Your task to perform on an android device: change timer sound Image 0: 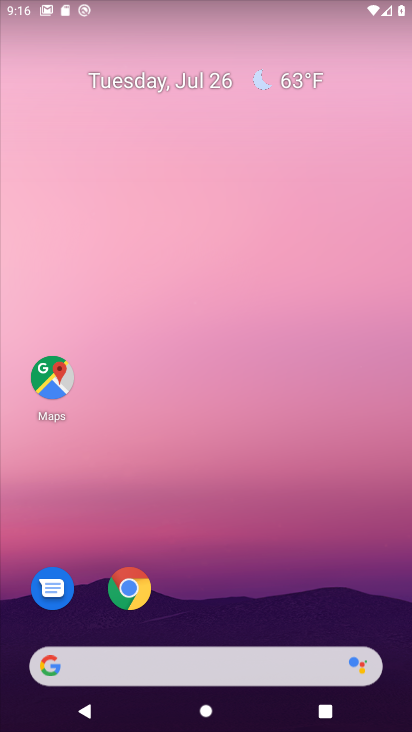
Step 0: drag from (392, 647) to (282, 46)
Your task to perform on an android device: change timer sound Image 1: 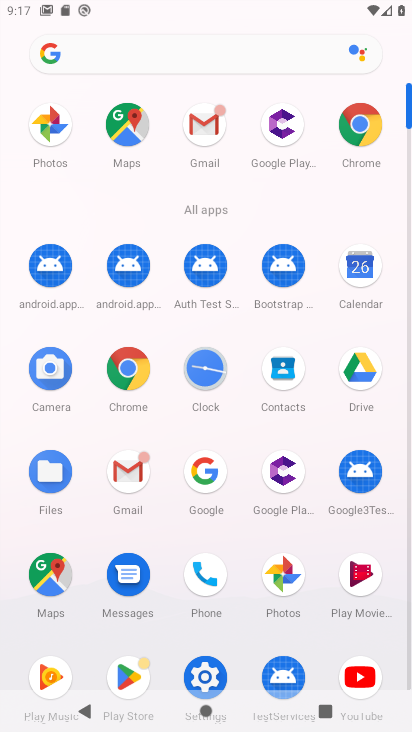
Step 1: click (209, 360)
Your task to perform on an android device: change timer sound Image 2: 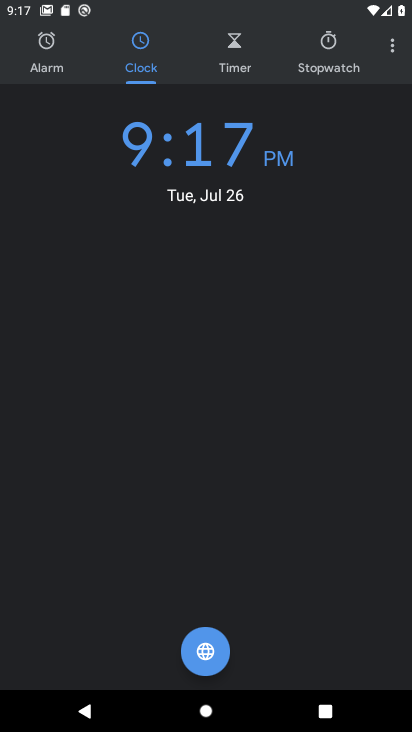
Step 2: click (399, 51)
Your task to perform on an android device: change timer sound Image 3: 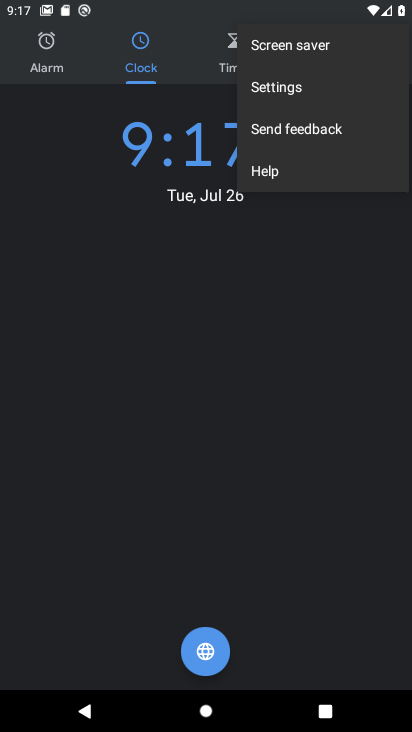
Step 3: click (302, 93)
Your task to perform on an android device: change timer sound Image 4: 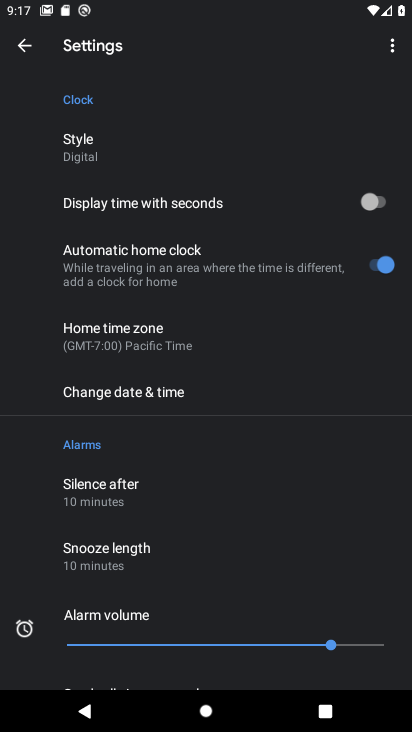
Step 4: drag from (266, 568) to (267, 206)
Your task to perform on an android device: change timer sound Image 5: 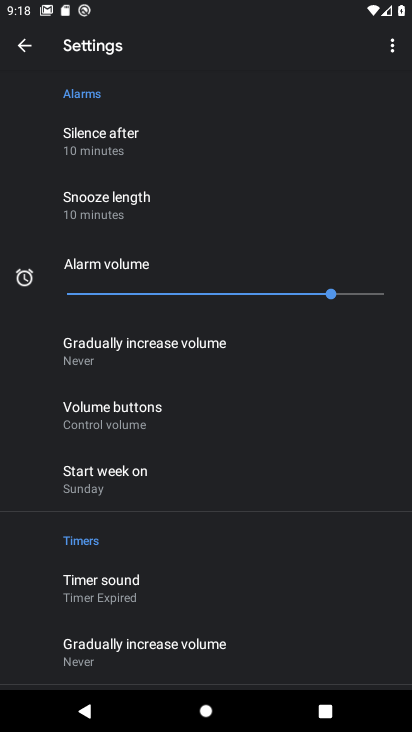
Step 5: click (97, 592)
Your task to perform on an android device: change timer sound Image 6: 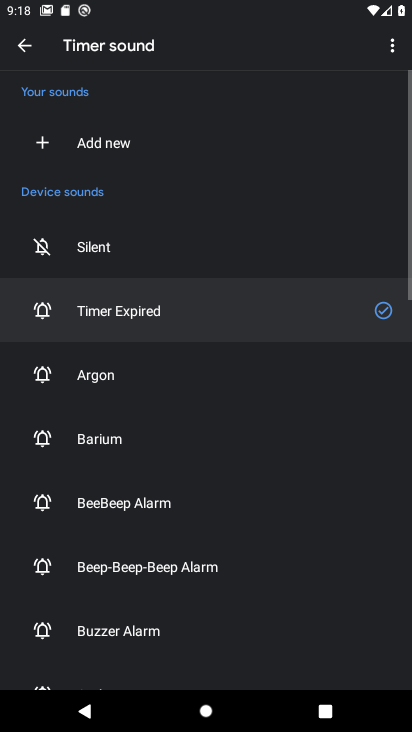
Step 6: click (69, 372)
Your task to perform on an android device: change timer sound Image 7: 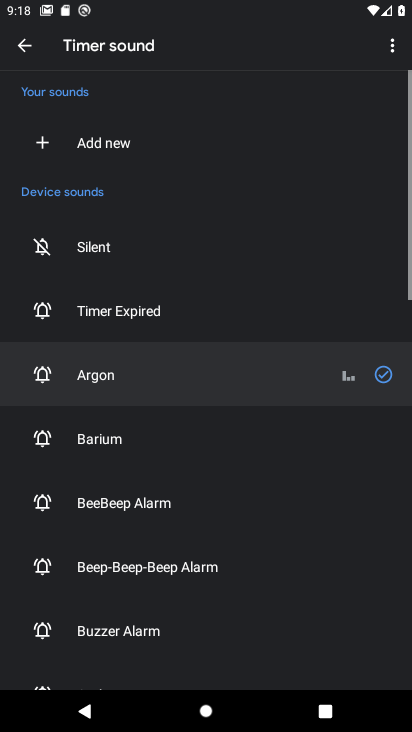
Step 7: task complete